Your task to perform on an android device: toggle notifications settings in the gmail app Image 0: 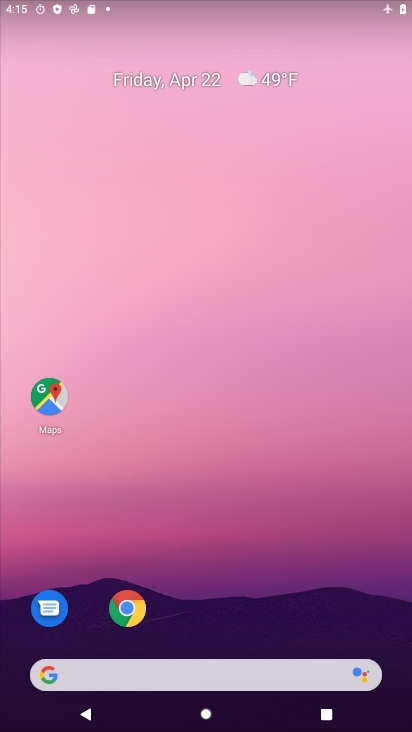
Step 0: click (231, 156)
Your task to perform on an android device: toggle notifications settings in the gmail app Image 1: 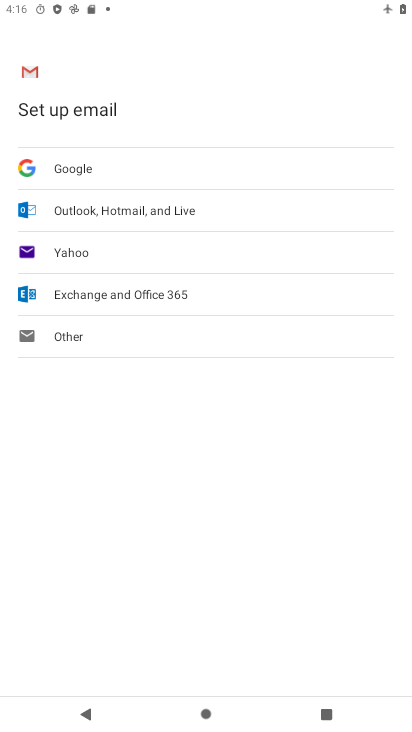
Step 1: press home button
Your task to perform on an android device: toggle notifications settings in the gmail app Image 2: 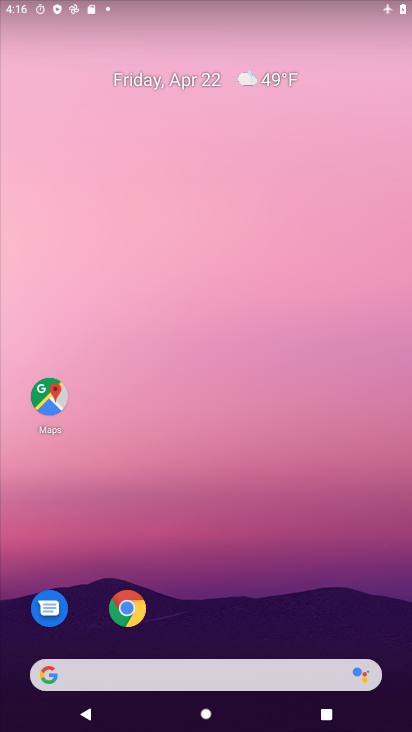
Step 2: drag from (276, 550) to (269, 55)
Your task to perform on an android device: toggle notifications settings in the gmail app Image 3: 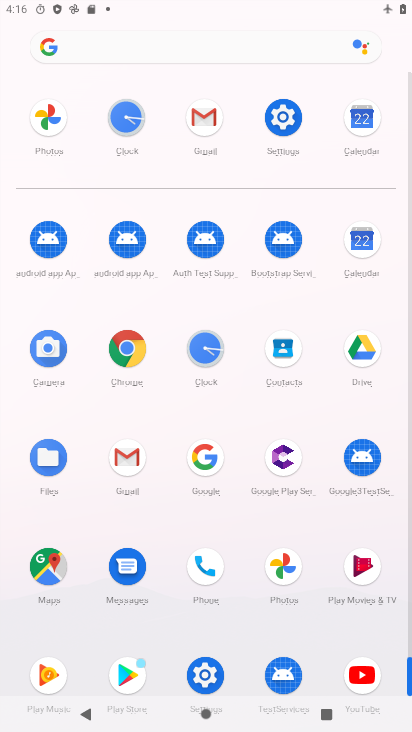
Step 3: click (202, 111)
Your task to perform on an android device: toggle notifications settings in the gmail app Image 4: 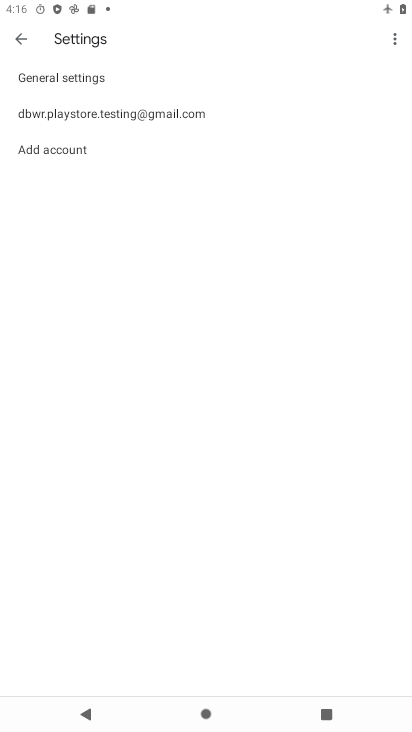
Step 4: click (103, 78)
Your task to perform on an android device: toggle notifications settings in the gmail app Image 5: 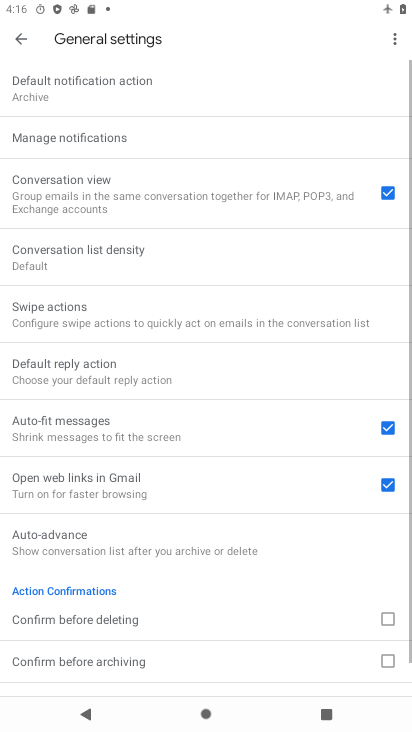
Step 5: click (99, 135)
Your task to perform on an android device: toggle notifications settings in the gmail app Image 6: 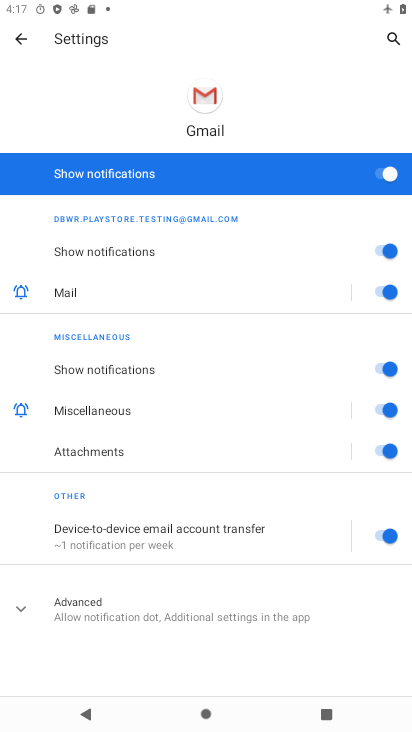
Step 6: click (376, 172)
Your task to perform on an android device: toggle notifications settings in the gmail app Image 7: 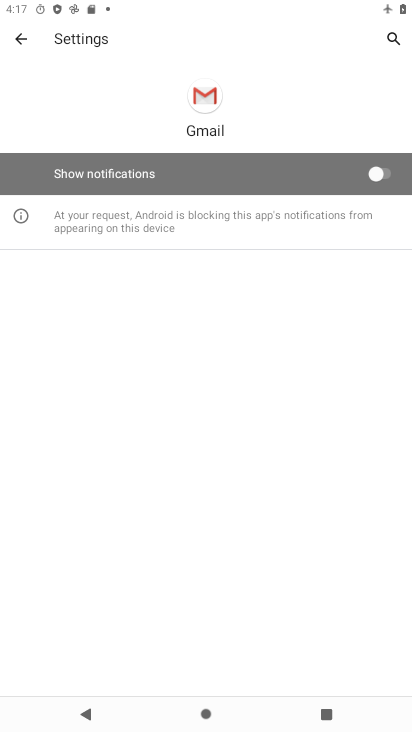
Step 7: task complete